Your task to perform on an android device: Add "duracell triple a" to the cart on ebay.com, then select checkout. Image 0: 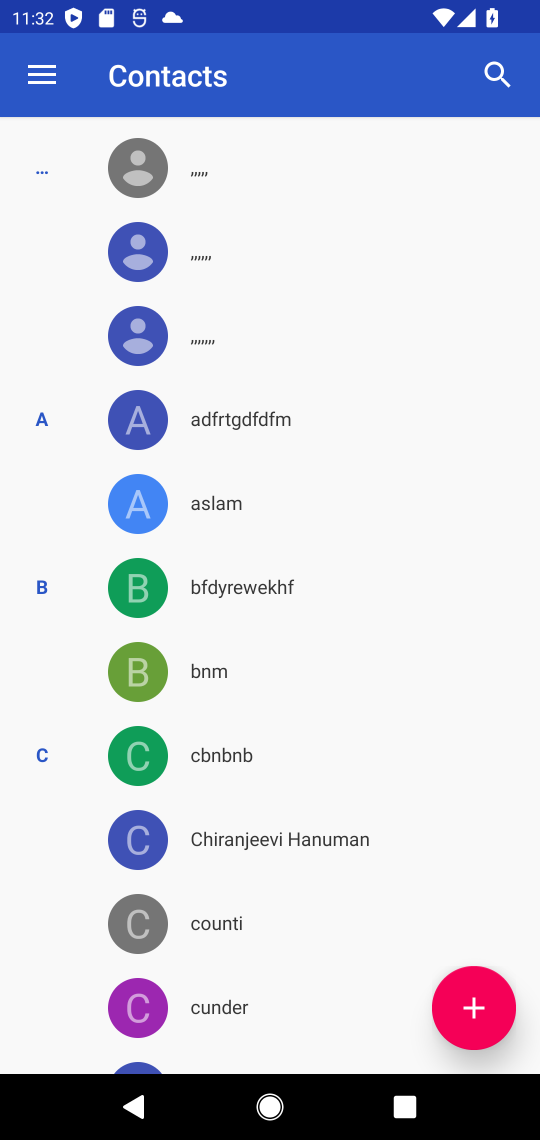
Step 0: press home button
Your task to perform on an android device: Add "duracell triple a" to the cart on ebay.com, then select checkout. Image 1: 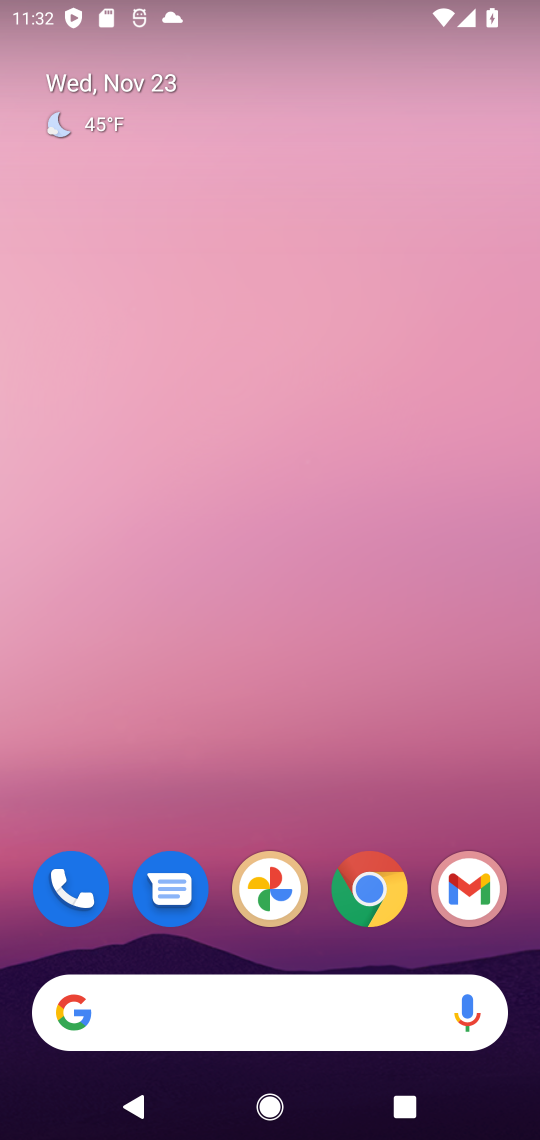
Step 1: click (363, 899)
Your task to perform on an android device: Add "duracell triple a" to the cart on ebay.com, then select checkout. Image 2: 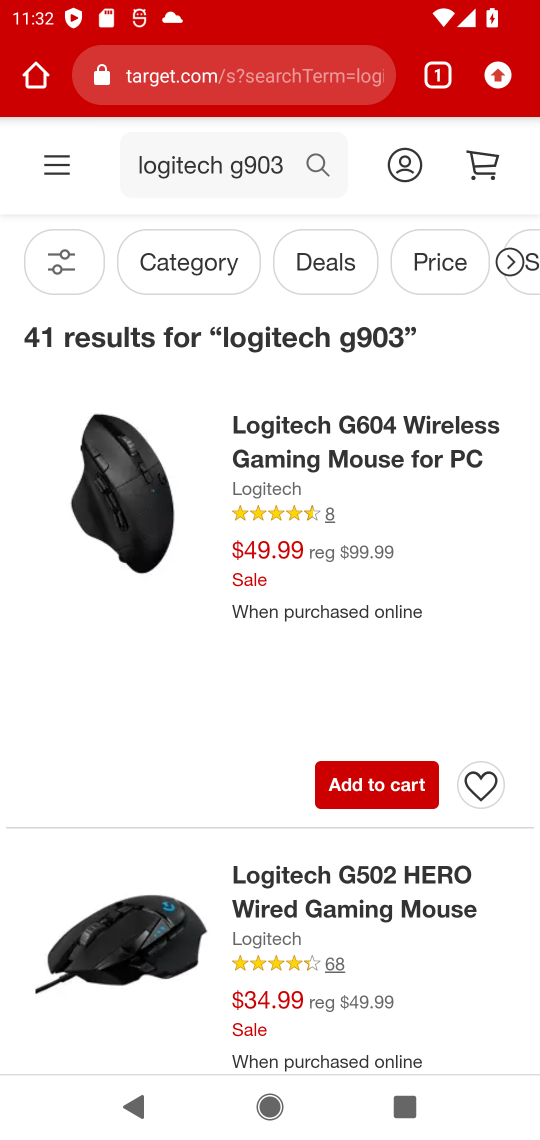
Step 2: click (197, 83)
Your task to perform on an android device: Add "duracell triple a" to the cart on ebay.com, then select checkout. Image 3: 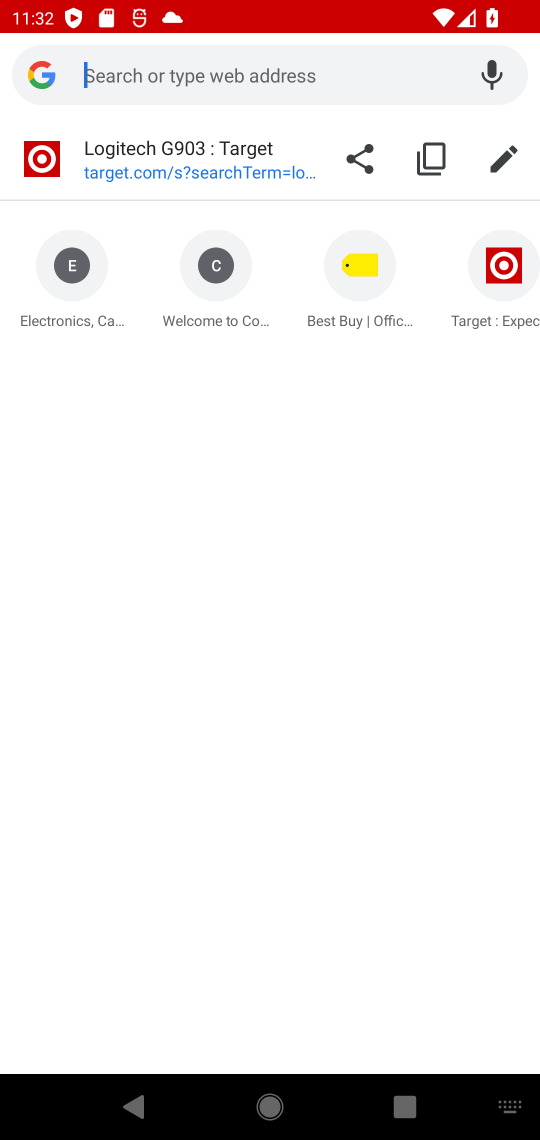
Step 3: type "ebay.com"
Your task to perform on an android device: Add "duracell triple a" to the cart on ebay.com, then select checkout. Image 4: 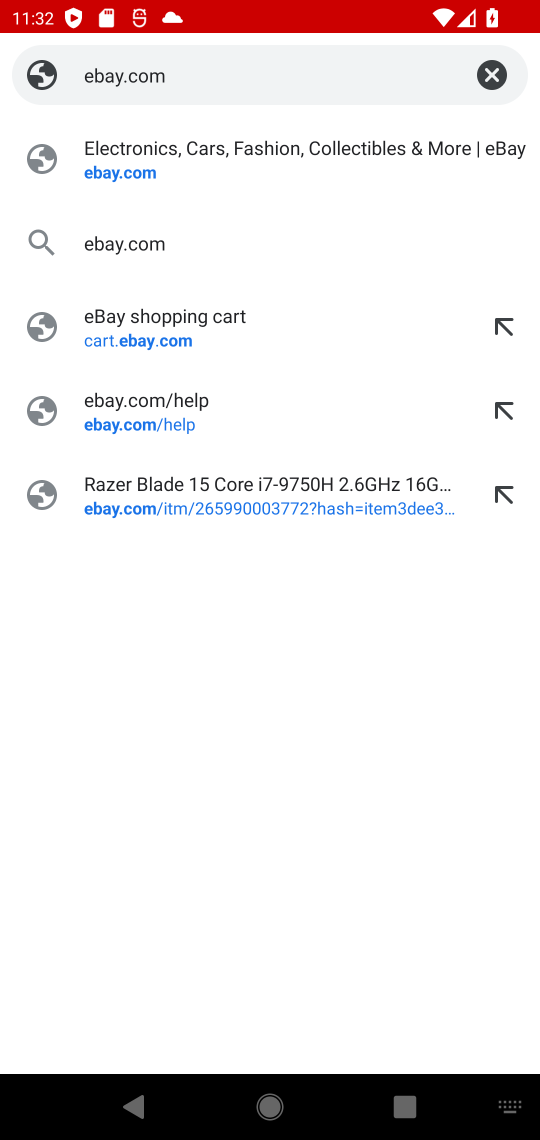
Step 4: click (108, 178)
Your task to perform on an android device: Add "duracell triple a" to the cart on ebay.com, then select checkout. Image 5: 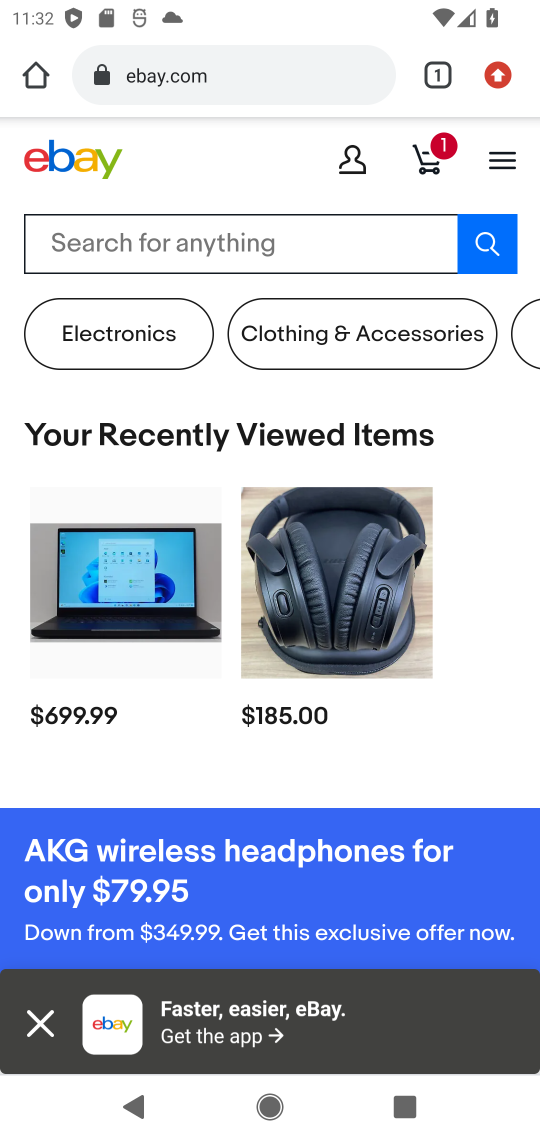
Step 5: click (77, 250)
Your task to perform on an android device: Add "duracell triple a" to the cart on ebay.com, then select checkout. Image 6: 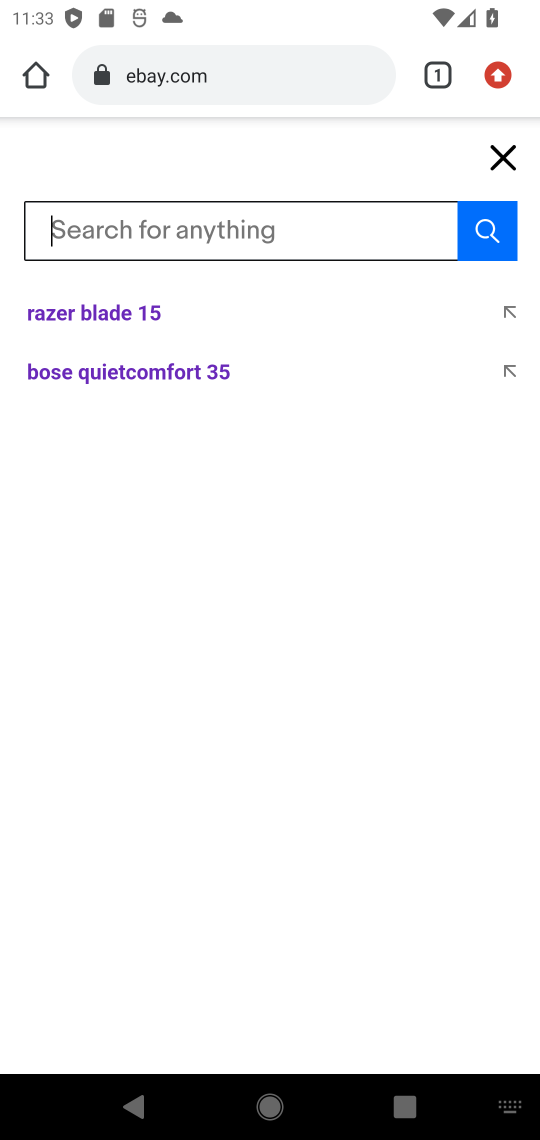
Step 6: type "duracell triple a"
Your task to perform on an android device: Add "duracell triple a" to the cart on ebay.com, then select checkout. Image 7: 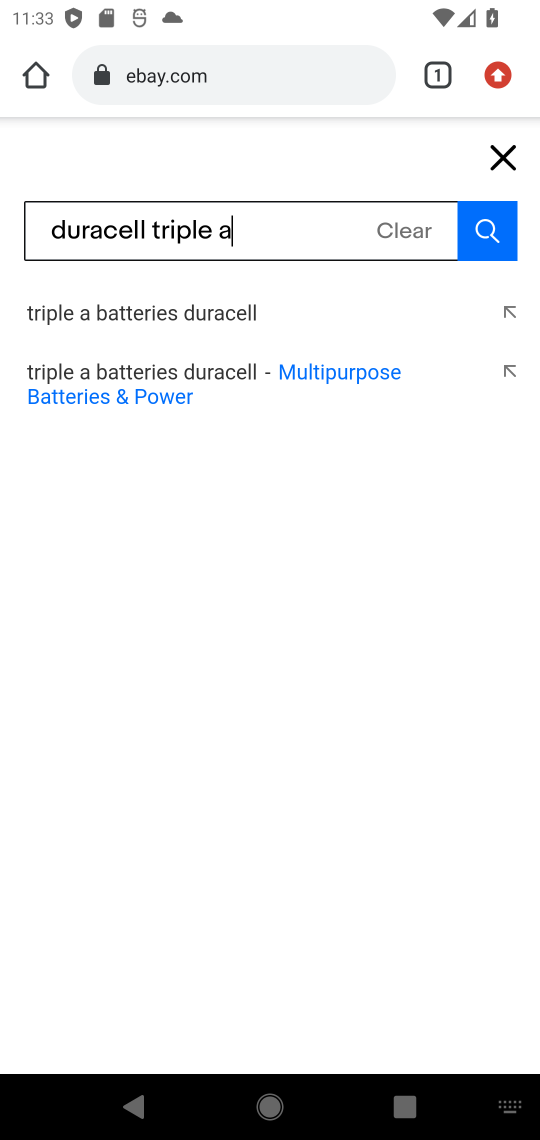
Step 7: click (484, 237)
Your task to perform on an android device: Add "duracell triple a" to the cart on ebay.com, then select checkout. Image 8: 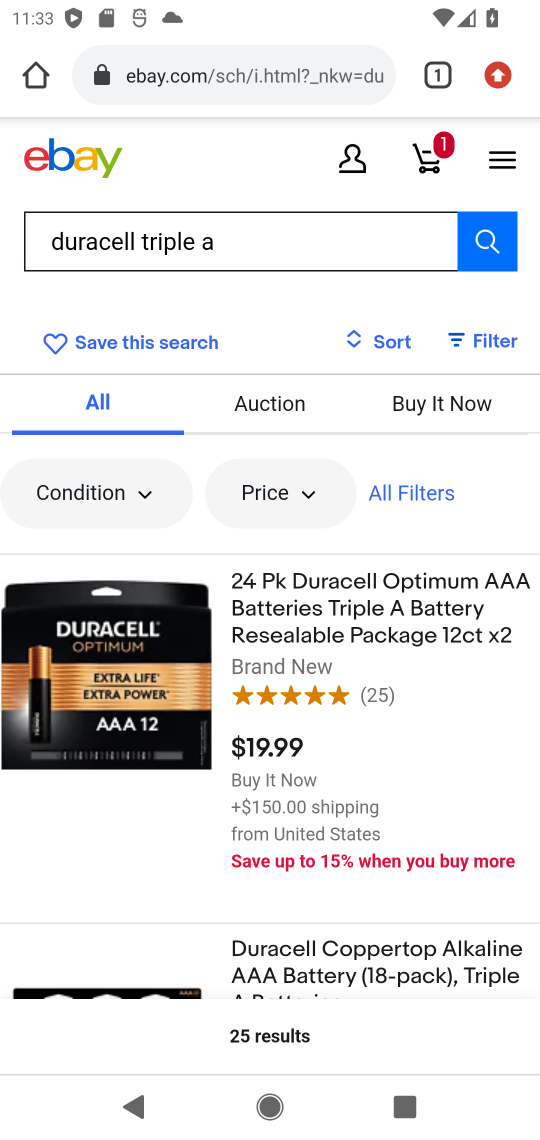
Step 8: click (115, 661)
Your task to perform on an android device: Add "duracell triple a" to the cart on ebay.com, then select checkout. Image 9: 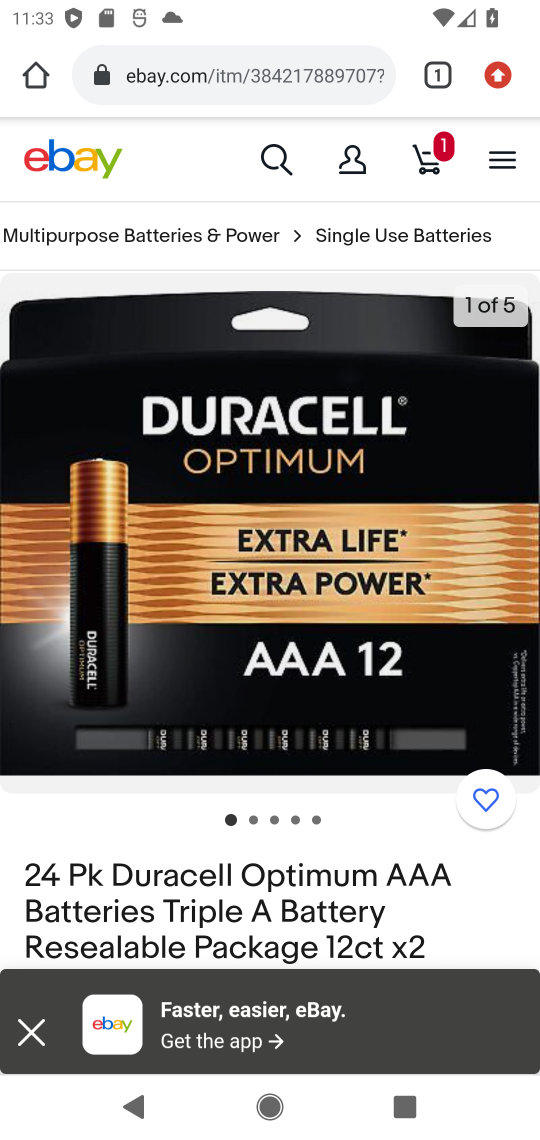
Step 9: drag from (195, 882) to (202, 491)
Your task to perform on an android device: Add "duracell triple a" to the cart on ebay.com, then select checkout. Image 10: 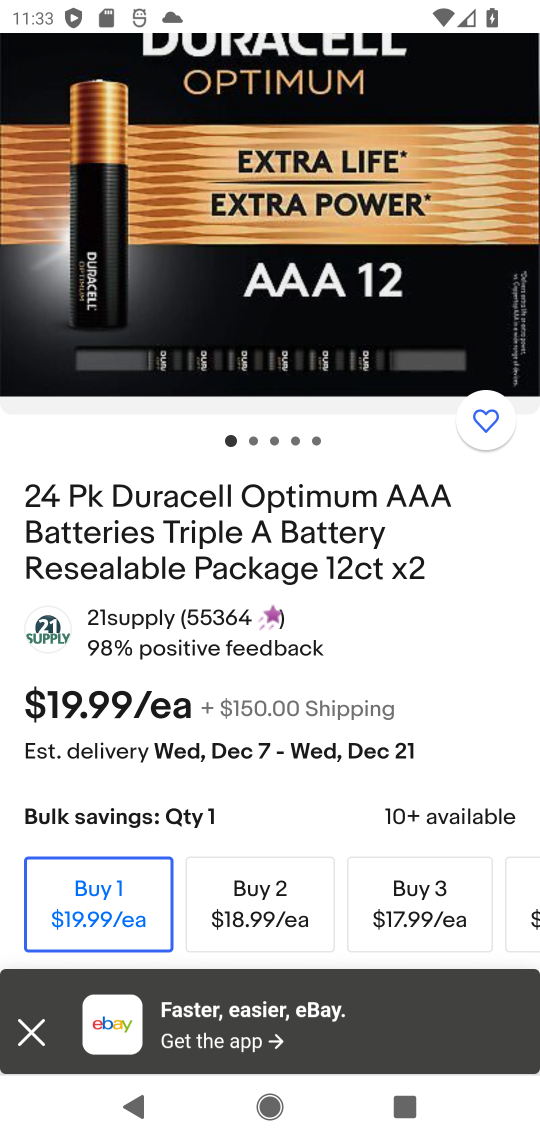
Step 10: drag from (239, 752) to (239, 358)
Your task to perform on an android device: Add "duracell triple a" to the cart on ebay.com, then select checkout. Image 11: 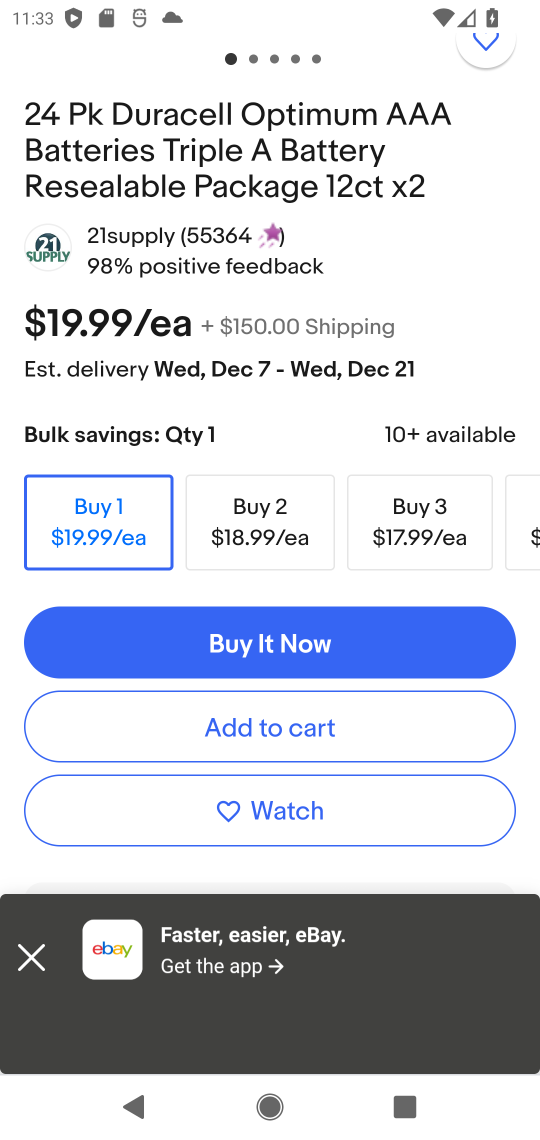
Step 11: click (249, 725)
Your task to perform on an android device: Add "duracell triple a" to the cart on ebay.com, then select checkout. Image 12: 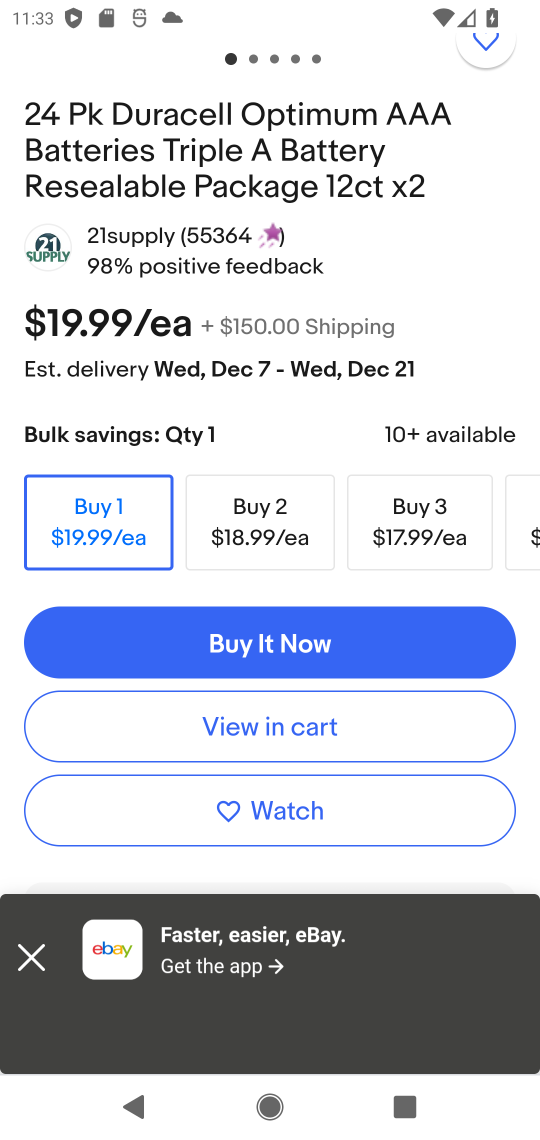
Step 12: click (249, 725)
Your task to perform on an android device: Add "duracell triple a" to the cart on ebay.com, then select checkout. Image 13: 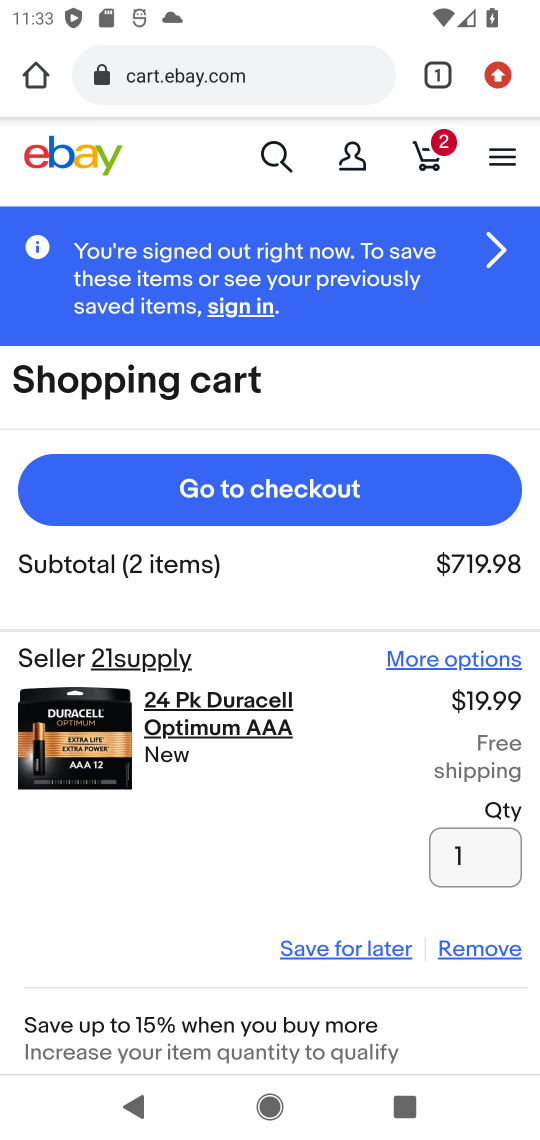
Step 13: click (250, 488)
Your task to perform on an android device: Add "duracell triple a" to the cart on ebay.com, then select checkout. Image 14: 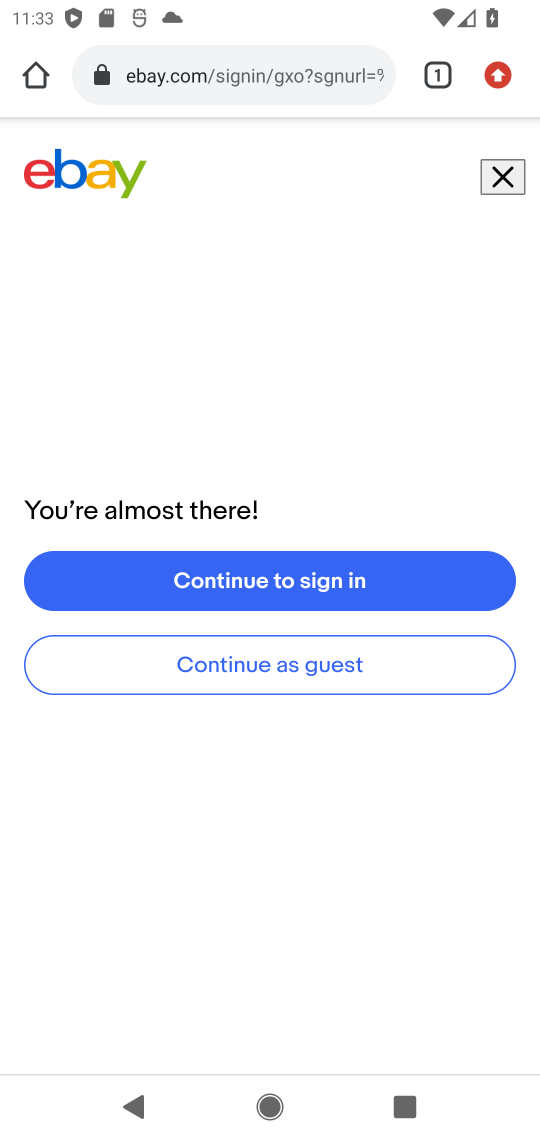
Step 14: task complete